Your task to perform on an android device: What's the weather today? Image 0: 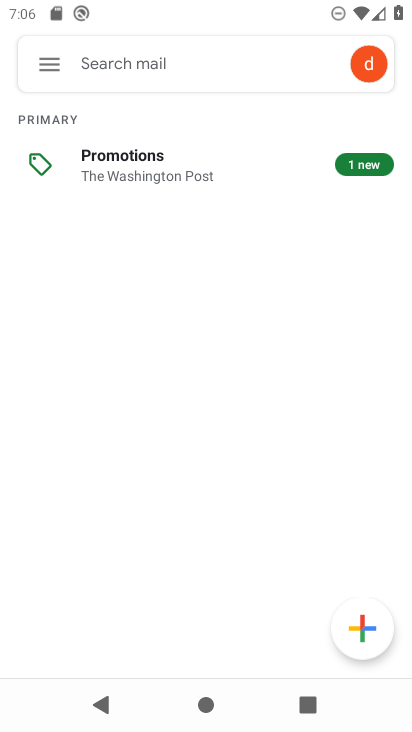
Step 0: press home button
Your task to perform on an android device: What's the weather today? Image 1: 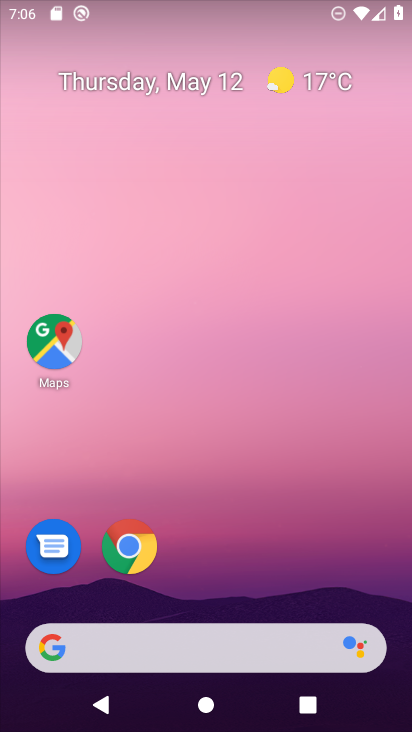
Step 1: click (205, 635)
Your task to perform on an android device: What's the weather today? Image 2: 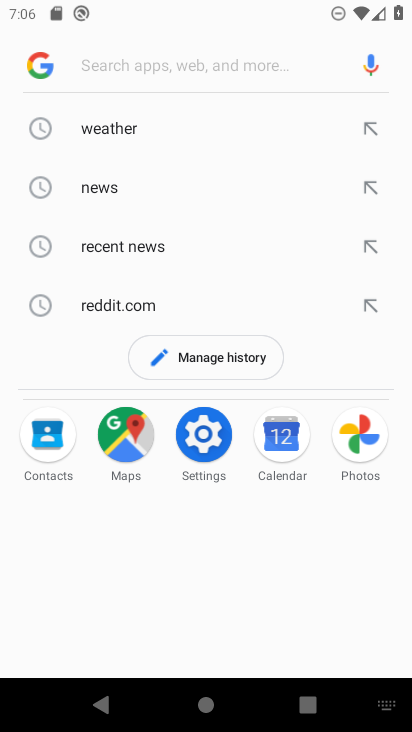
Step 2: click (125, 123)
Your task to perform on an android device: What's the weather today? Image 3: 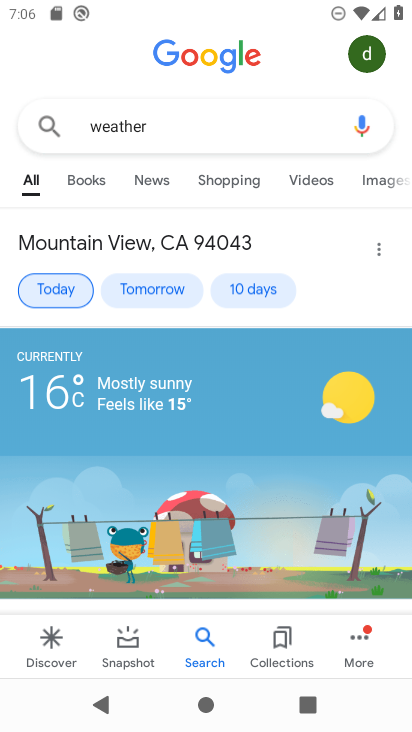
Step 3: task complete